Your task to perform on an android device: open app "Duolingo: language lessons" (install if not already installed) Image 0: 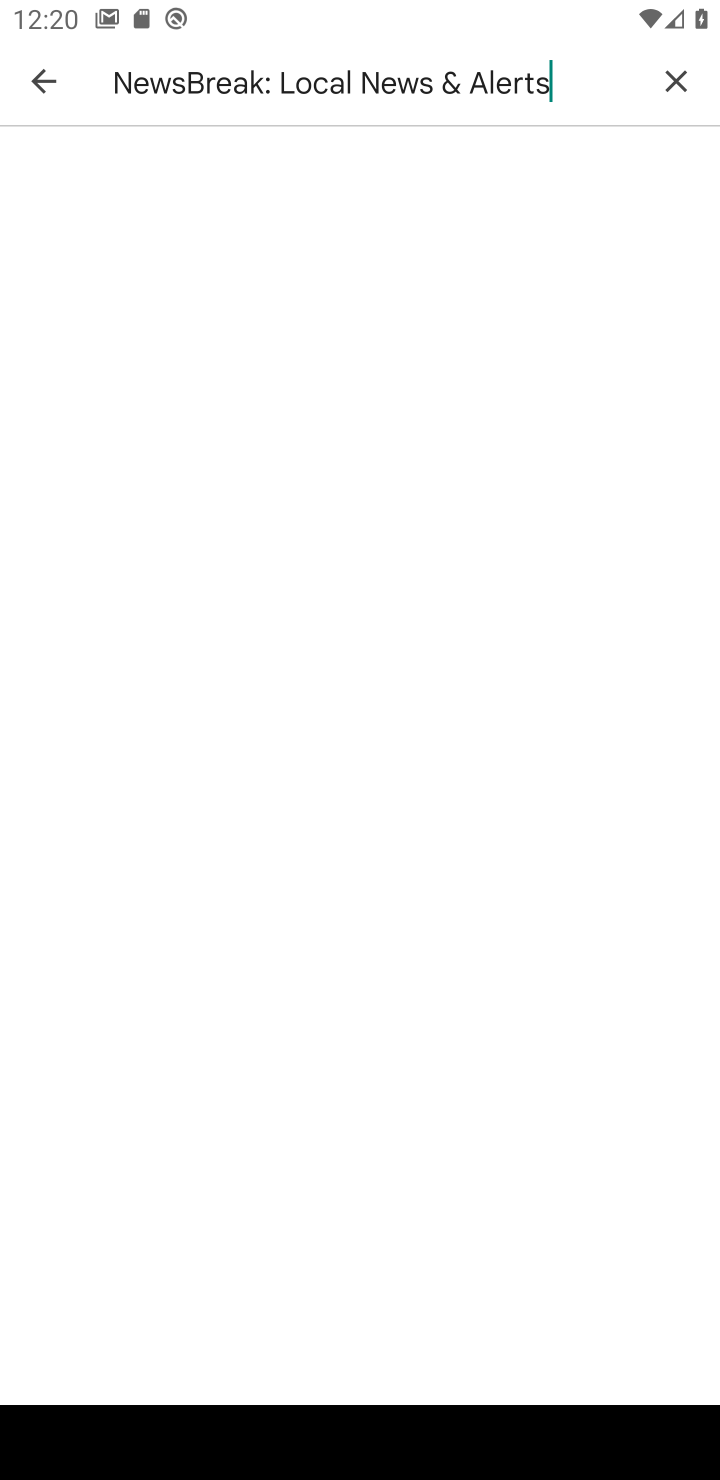
Step 0: click (670, 74)
Your task to perform on an android device: open app "Duolingo: language lessons" (install if not already installed) Image 1: 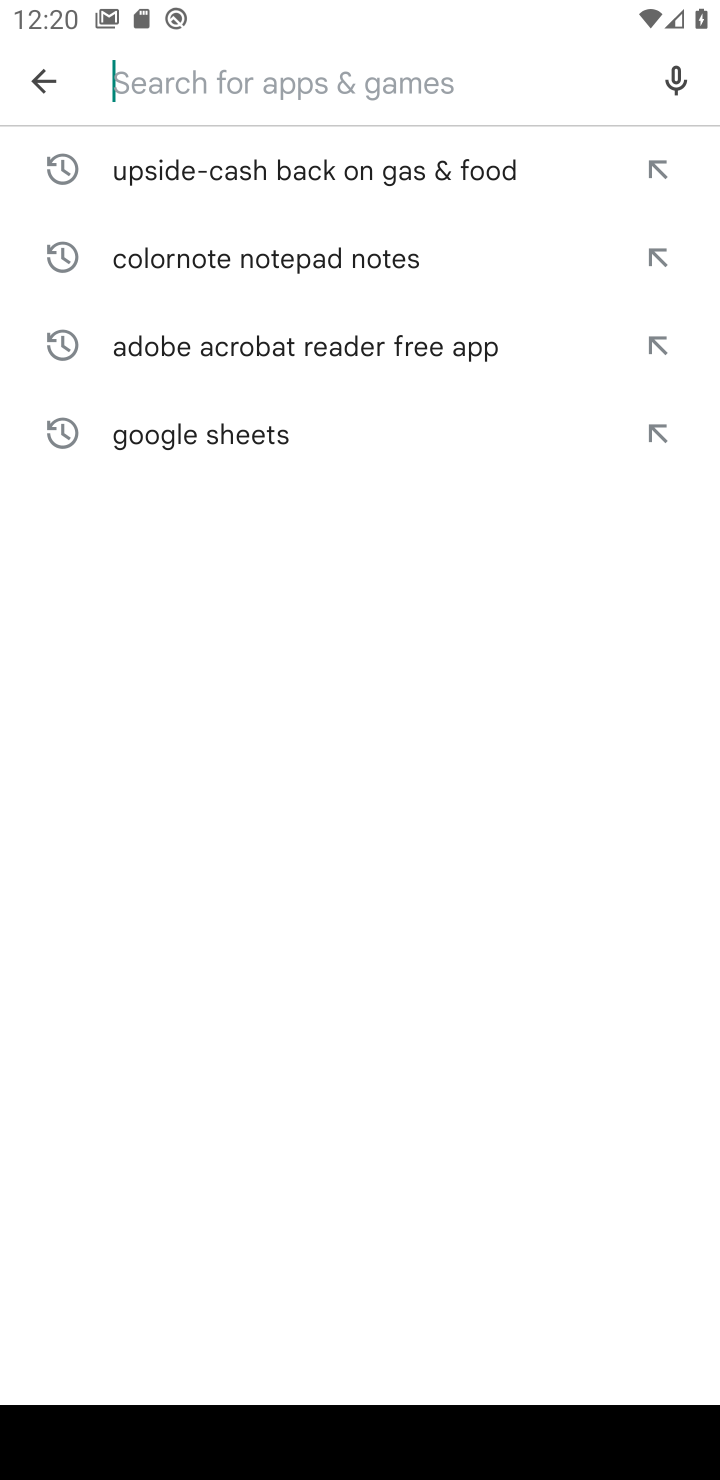
Step 1: type "Duolingo: language lessons"
Your task to perform on an android device: open app "Duolingo: language lessons" (install if not already installed) Image 2: 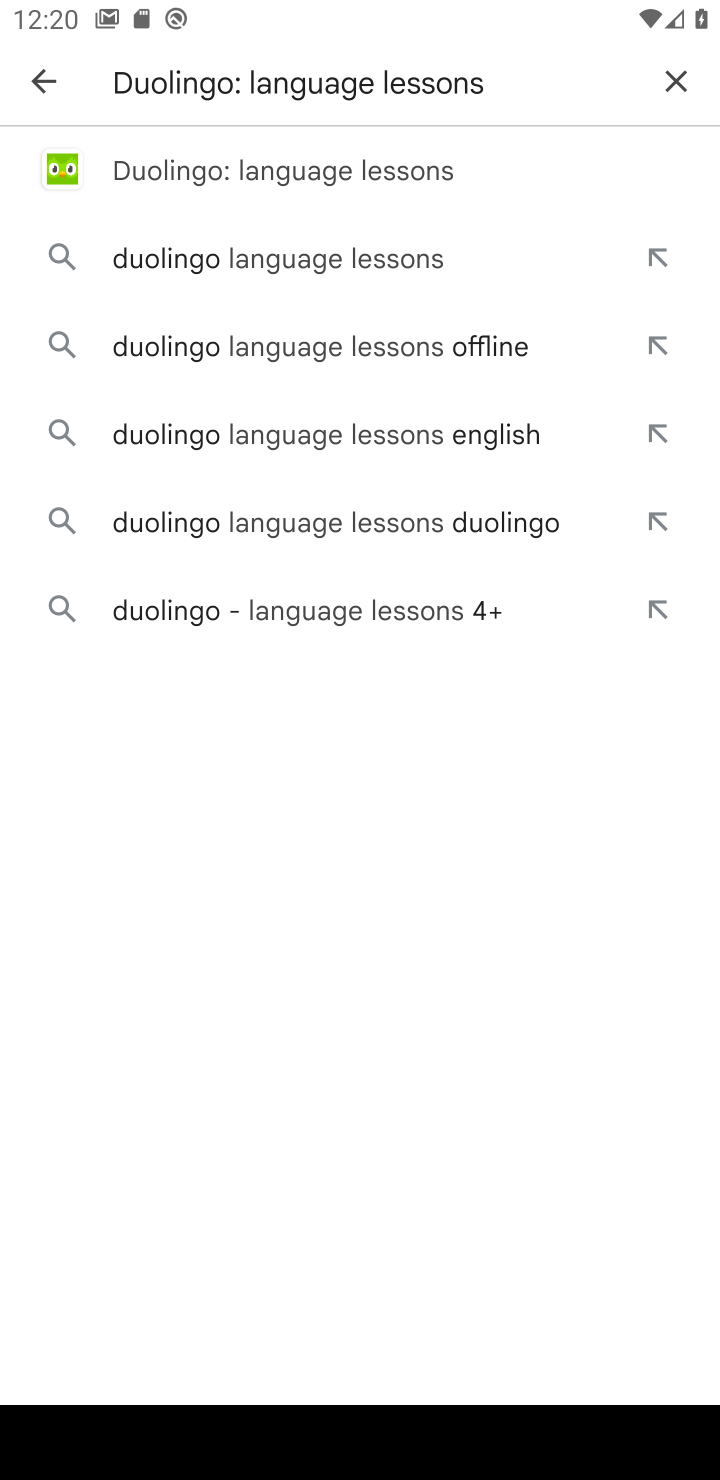
Step 2: click (252, 166)
Your task to perform on an android device: open app "Duolingo: language lessons" (install if not already installed) Image 3: 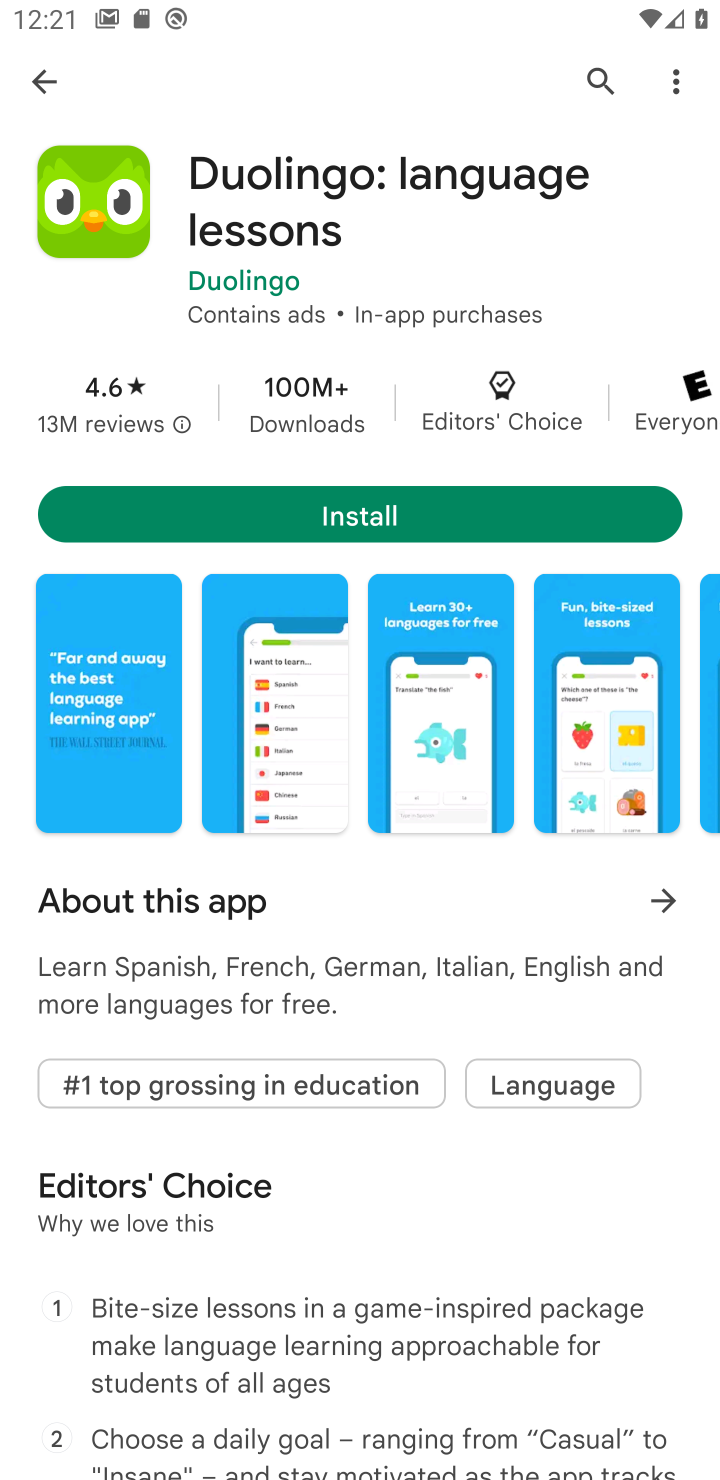
Step 3: click (349, 521)
Your task to perform on an android device: open app "Duolingo: language lessons" (install if not already installed) Image 4: 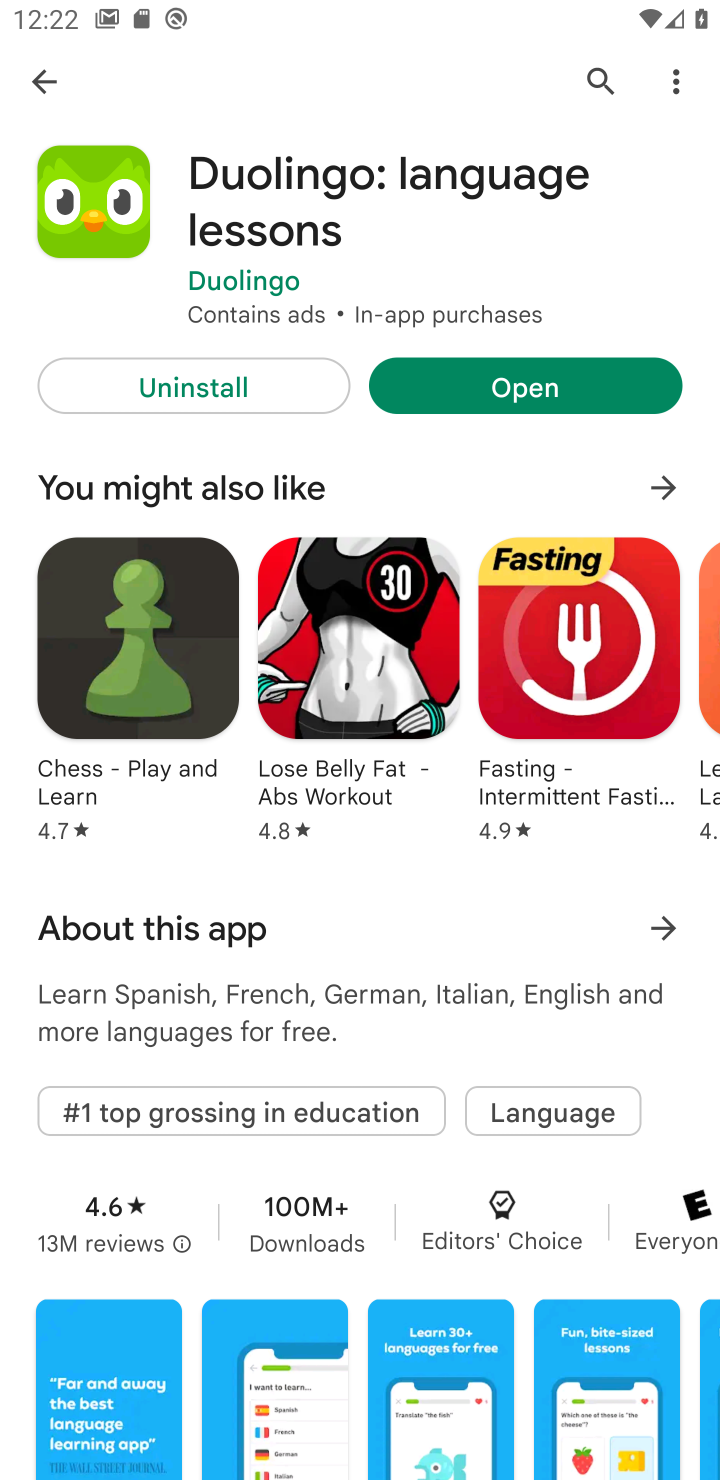
Step 4: click (482, 382)
Your task to perform on an android device: open app "Duolingo: language lessons" (install if not already installed) Image 5: 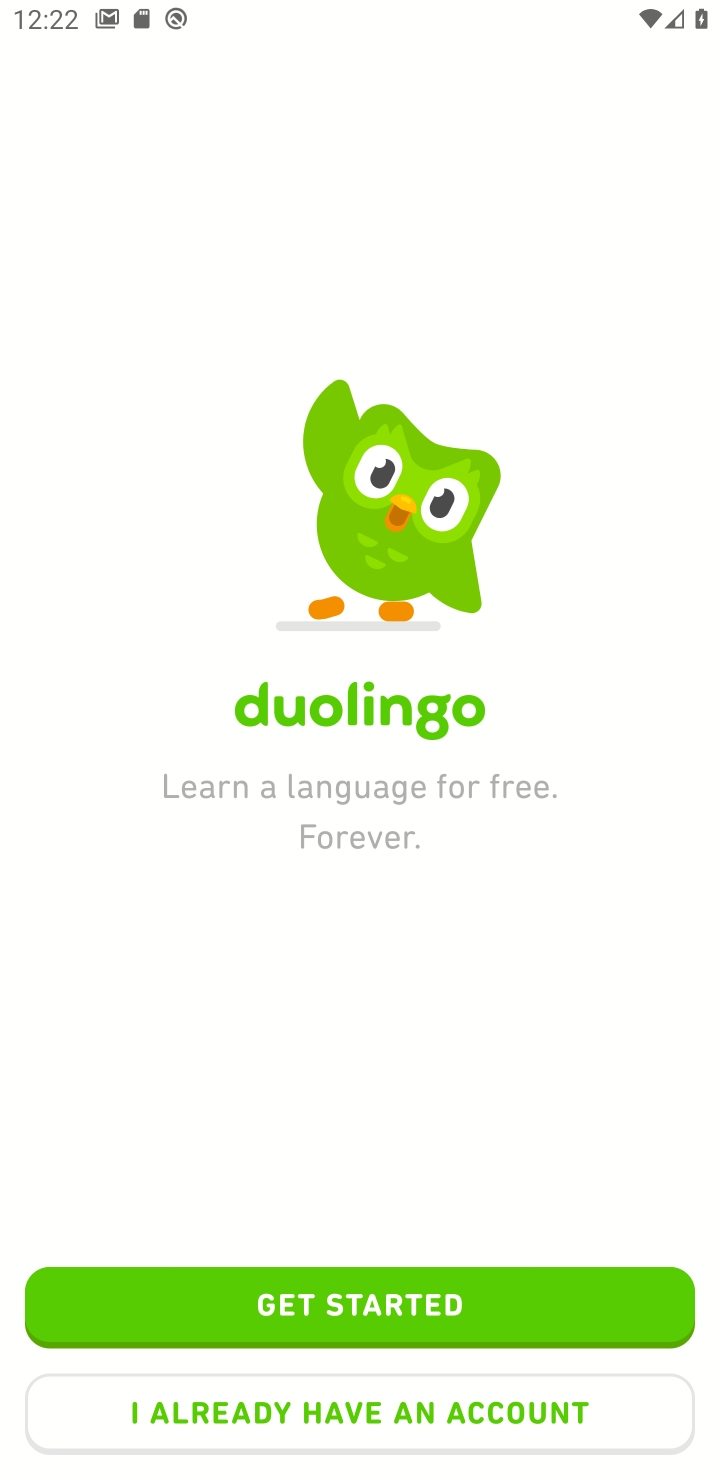
Step 5: task complete